Your task to perform on an android device: turn pop-ups on in chrome Image 0: 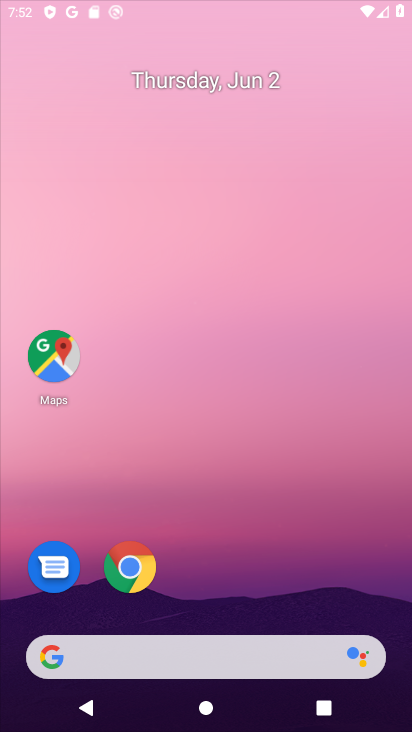
Step 0: drag from (233, 291) to (229, 157)
Your task to perform on an android device: turn pop-ups on in chrome Image 1: 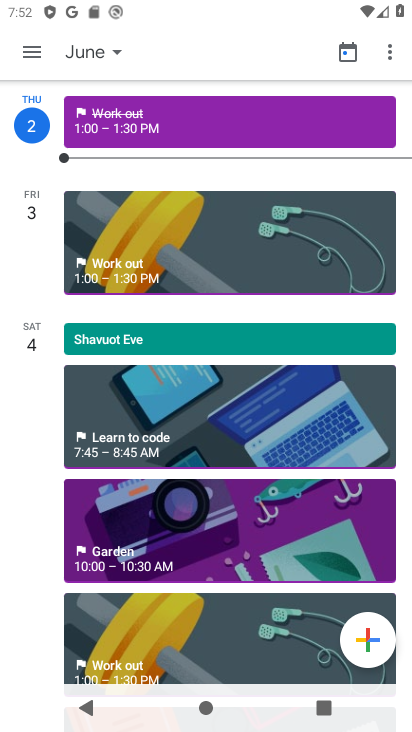
Step 1: press home button
Your task to perform on an android device: turn pop-ups on in chrome Image 2: 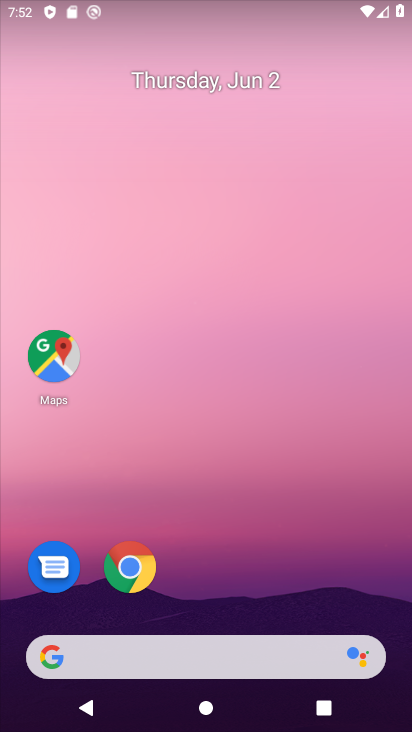
Step 2: click (135, 567)
Your task to perform on an android device: turn pop-ups on in chrome Image 3: 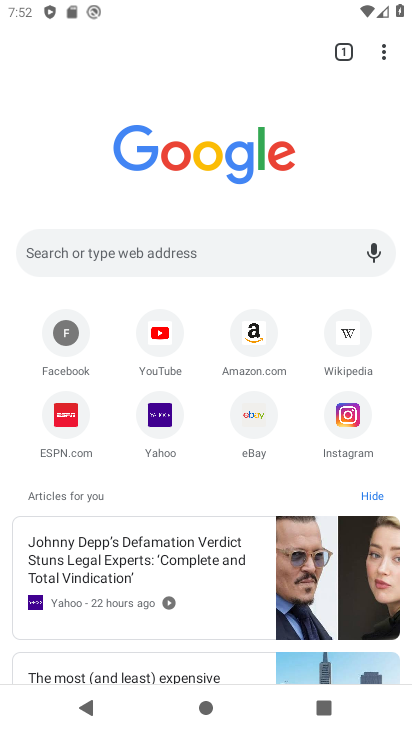
Step 3: drag from (389, 43) to (206, 428)
Your task to perform on an android device: turn pop-ups on in chrome Image 4: 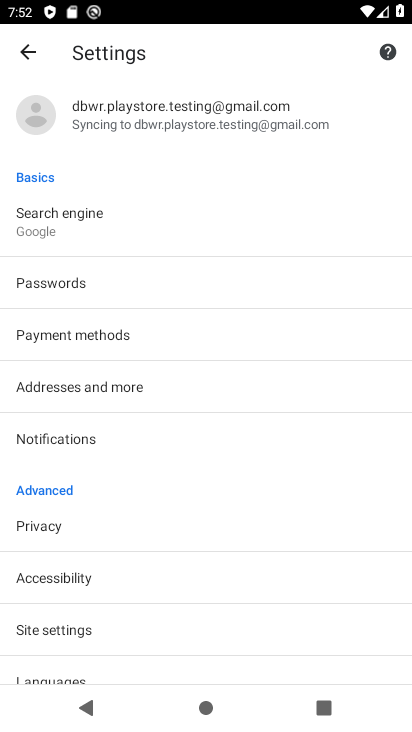
Step 4: drag from (217, 604) to (248, 160)
Your task to perform on an android device: turn pop-ups on in chrome Image 5: 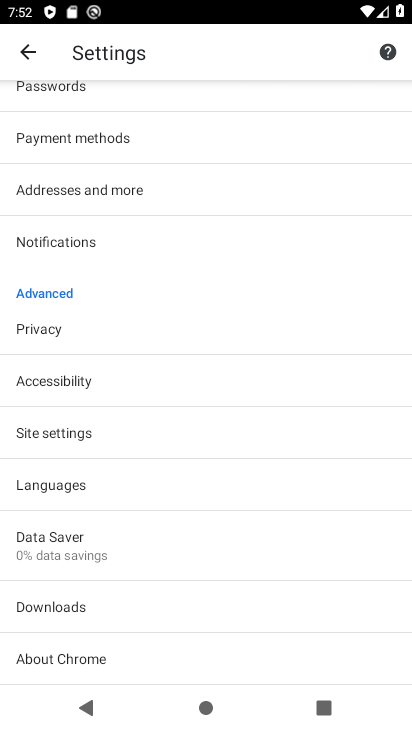
Step 5: click (75, 432)
Your task to perform on an android device: turn pop-ups on in chrome Image 6: 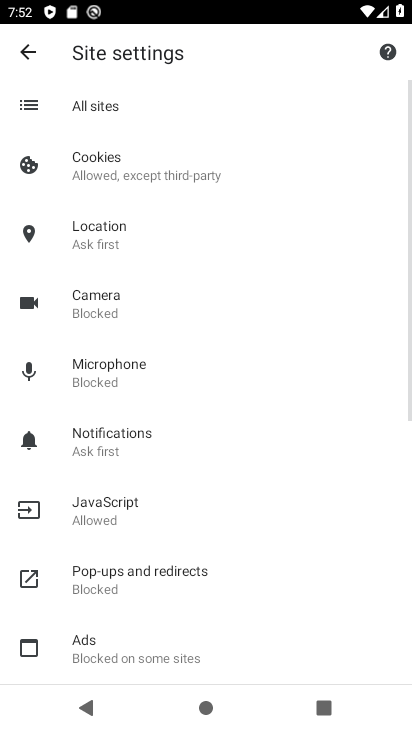
Step 6: drag from (215, 545) to (233, 353)
Your task to perform on an android device: turn pop-ups on in chrome Image 7: 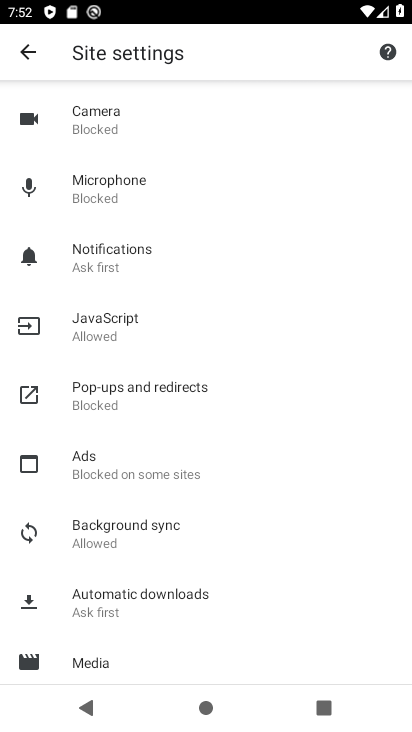
Step 7: click (163, 407)
Your task to perform on an android device: turn pop-ups on in chrome Image 8: 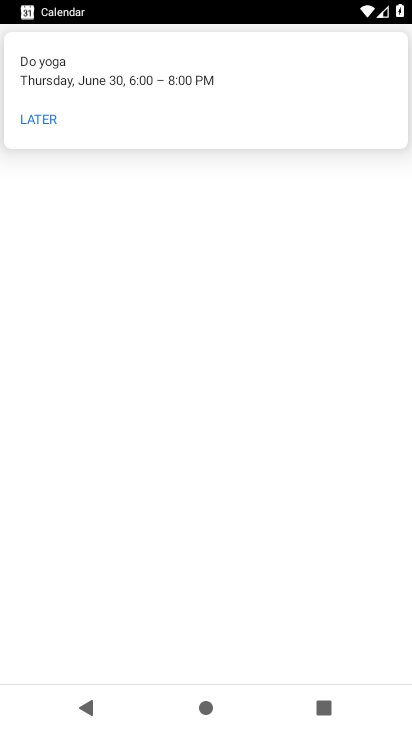
Step 8: click (36, 120)
Your task to perform on an android device: turn pop-ups on in chrome Image 9: 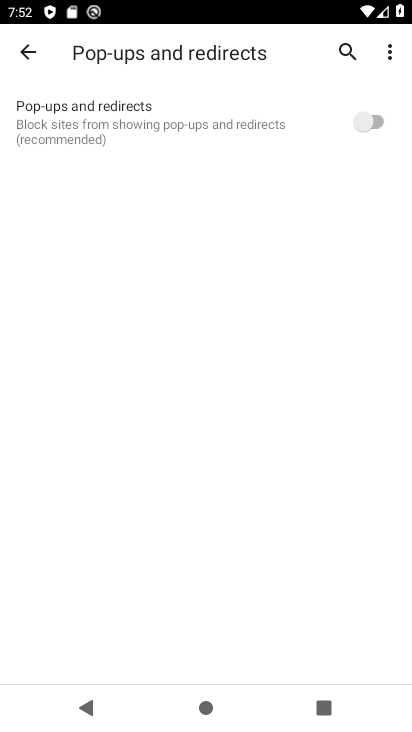
Step 9: click (371, 118)
Your task to perform on an android device: turn pop-ups on in chrome Image 10: 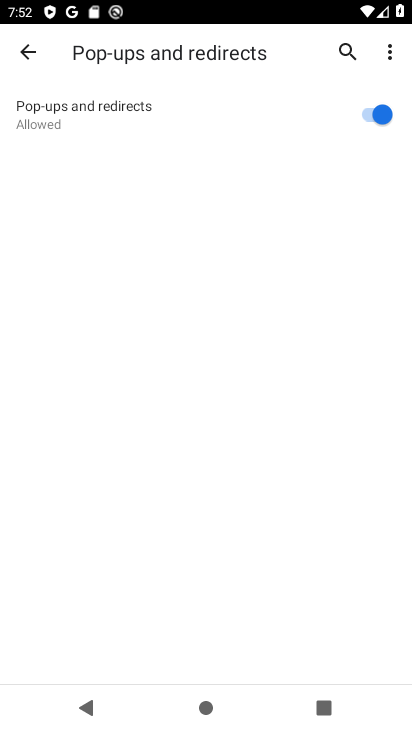
Step 10: task complete